Your task to perform on an android device: check android version Image 0: 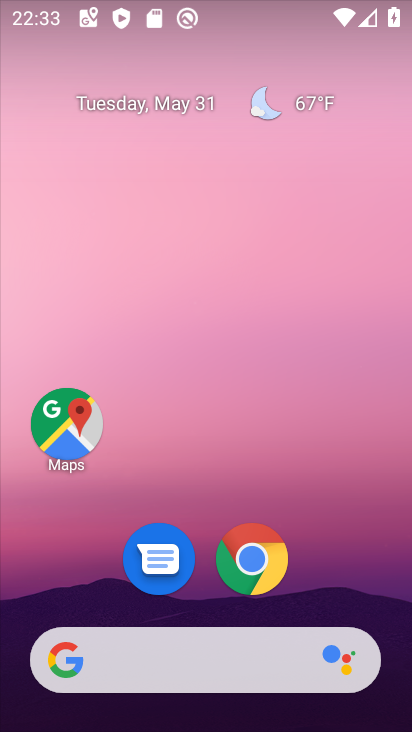
Step 0: drag from (327, 571) to (299, 46)
Your task to perform on an android device: check android version Image 1: 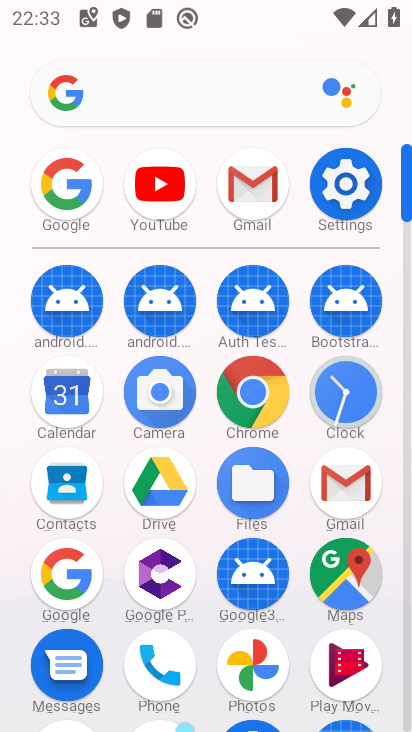
Step 1: click (347, 186)
Your task to perform on an android device: check android version Image 2: 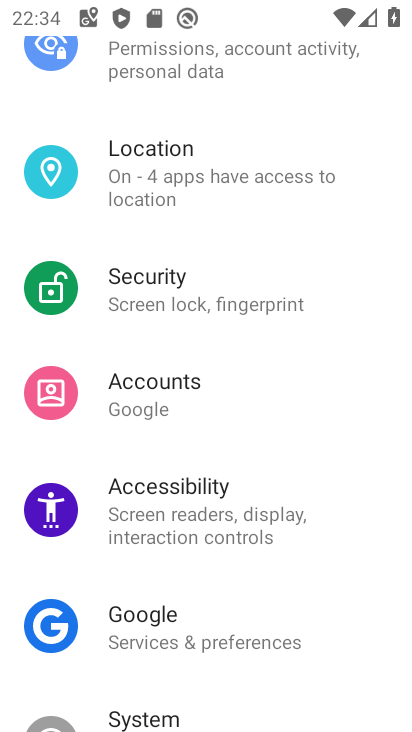
Step 2: drag from (224, 642) to (226, 96)
Your task to perform on an android device: check android version Image 3: 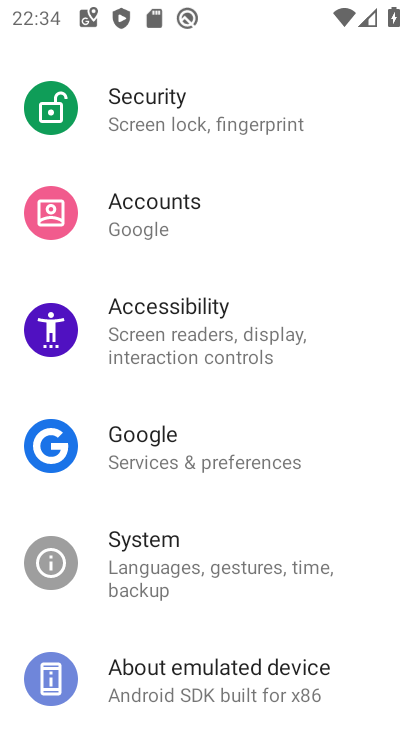
Step 3: click (223, 679)
Your task to perform on an android device: check android version Image 4: 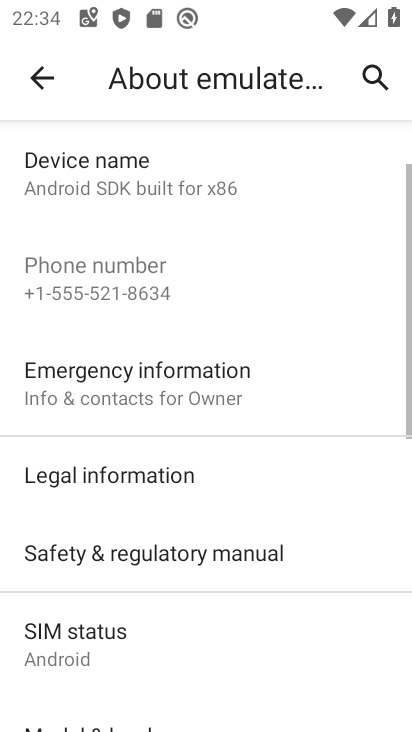
Step 4: drag from (234, 575) to (193, 276)
Your task to perform on an android device: check android version Image 5: 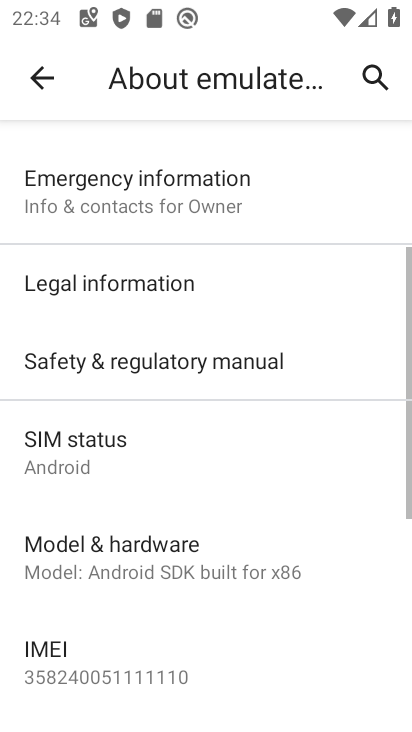
Step 5: drag from (142, 659) to (145, 367)
Your task to perform on an android device: check android version Image 6: 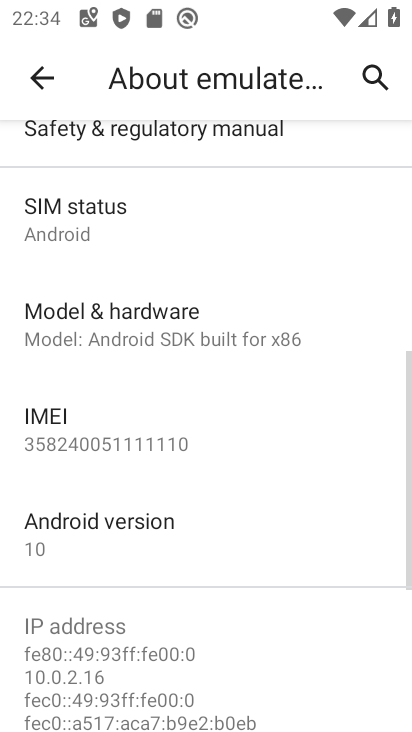
Step 6: drag from (170, 637) to (199, 451)
Your task to perform on an android device: check android version Image 7: 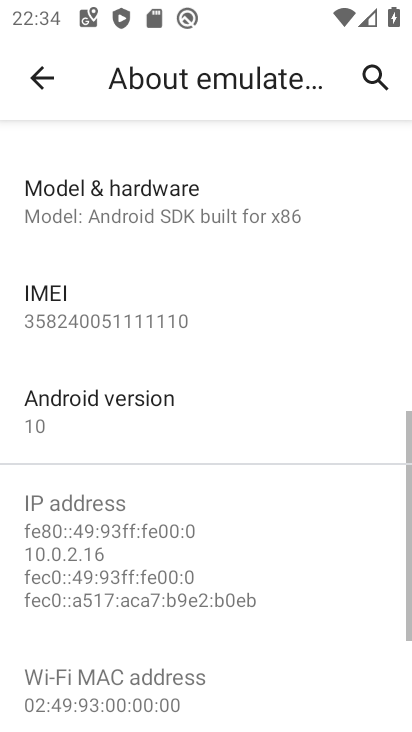
Step 7: click (104, 415)
Your task to perform on an android device: check android version Image 8: 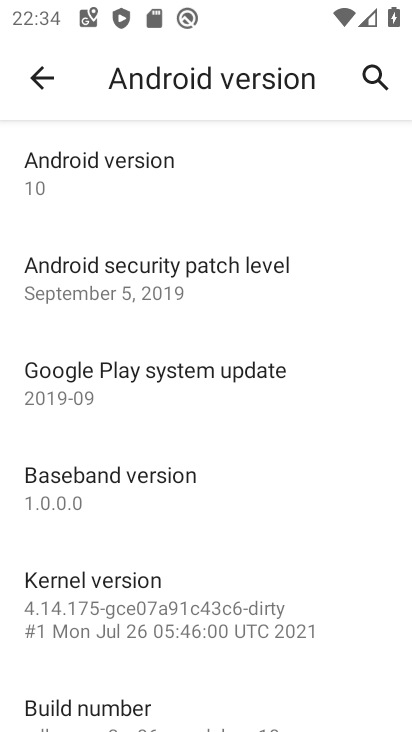
Step 8: click (184, 192)
Your task to perform on an android device: check android version Image 9: 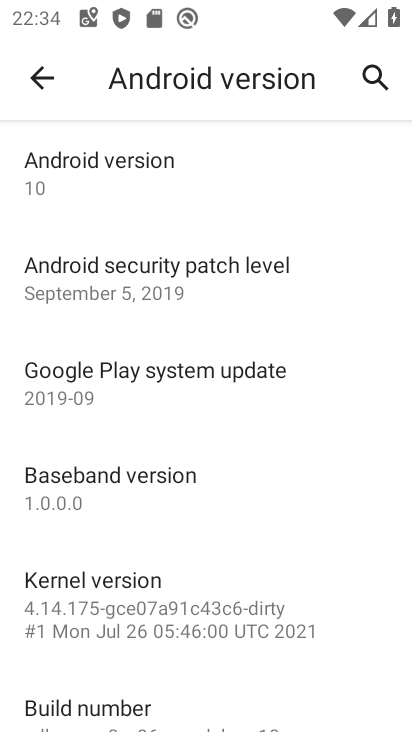
Step 9: task complete